Your task to perform on an android device: turn on priority inbox in the gmail app Image 0: 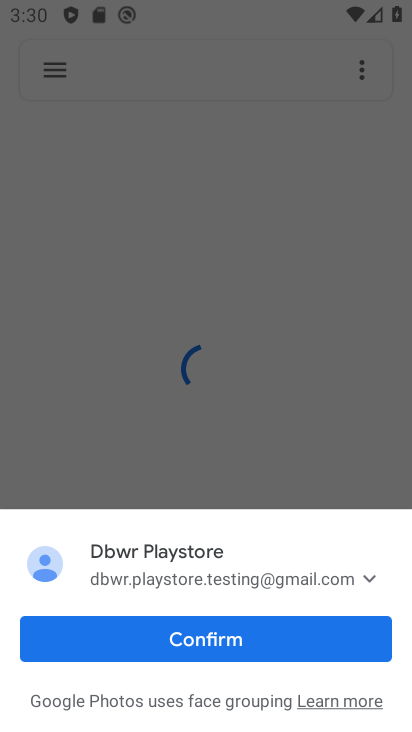
Step 0: press home button
Your task to perform on an android device: turn on priority inbox in the gmail app Image 1: 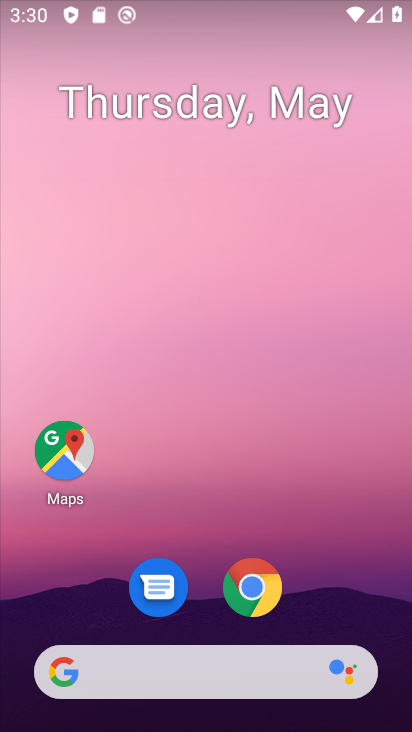
Step 1: drag from (368, 583) to (359, 171)
Your task to perform on an android device: turn on priority inbox in the gmail app Image 2: 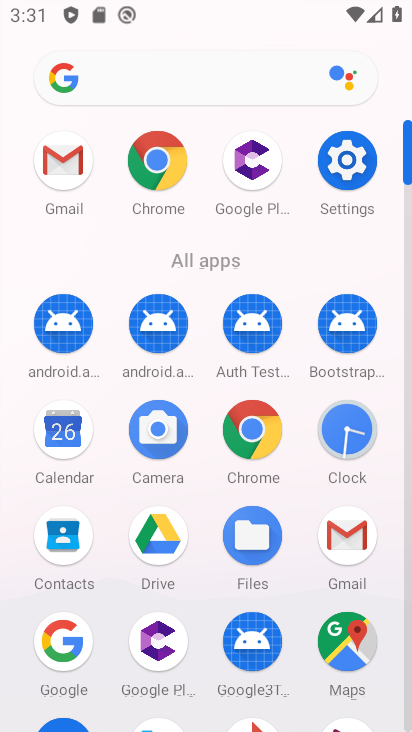
Step 2: click (338, 535)
Your task to perform on an android device: turn on priority inbox in the gmail app Image 3: 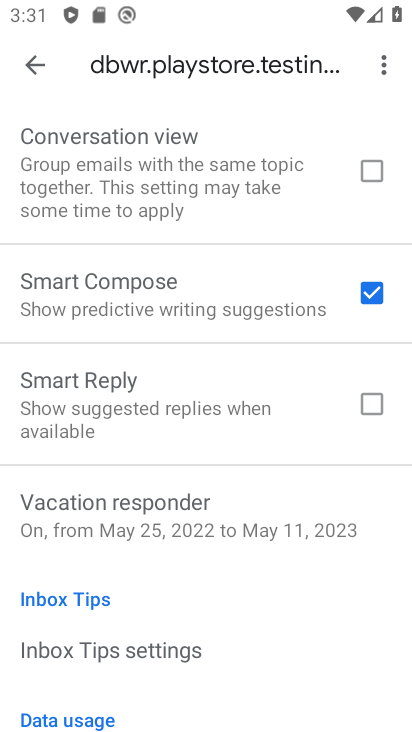
Step 3: task complete